Your task to perform on an android device: Find coffee shops on Maps Image 0: 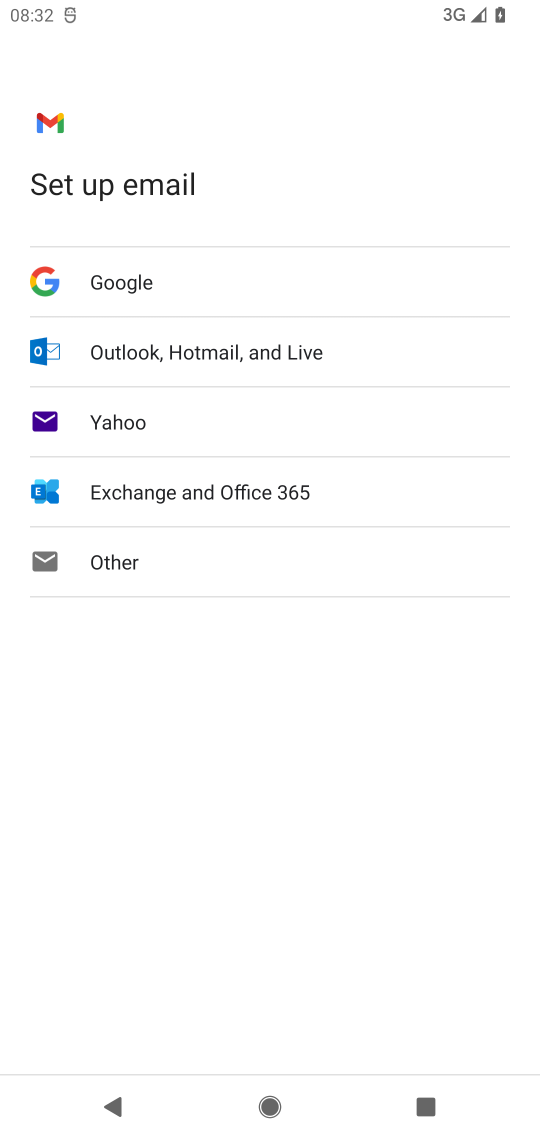
Step 0: press home button
Your task to perform on an android device: Find coffee shops on Maps Image 1: 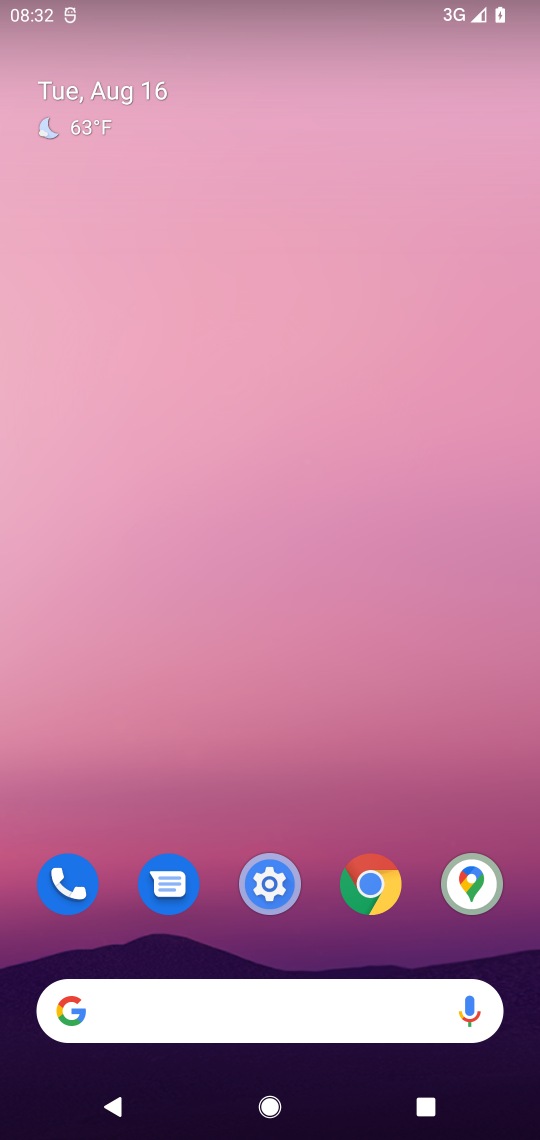
Step 1: click (468, 882)
Your task to perform on an android device: Find coffee shops on Maps Image 2: 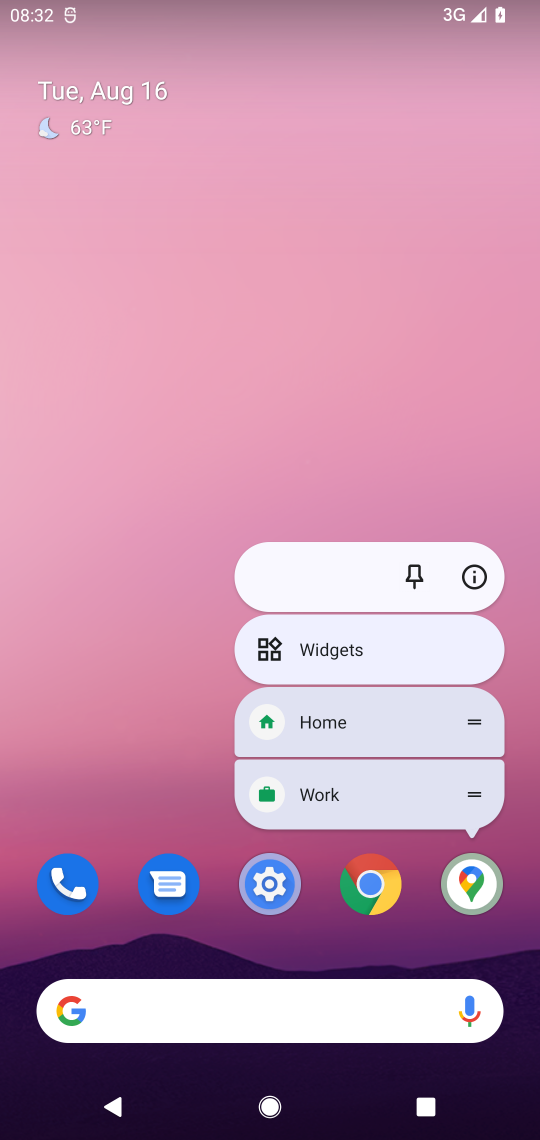
Step 2: click (468, 882)
Your task to perform on an android device: Find coffee shops on Maps Image 3: 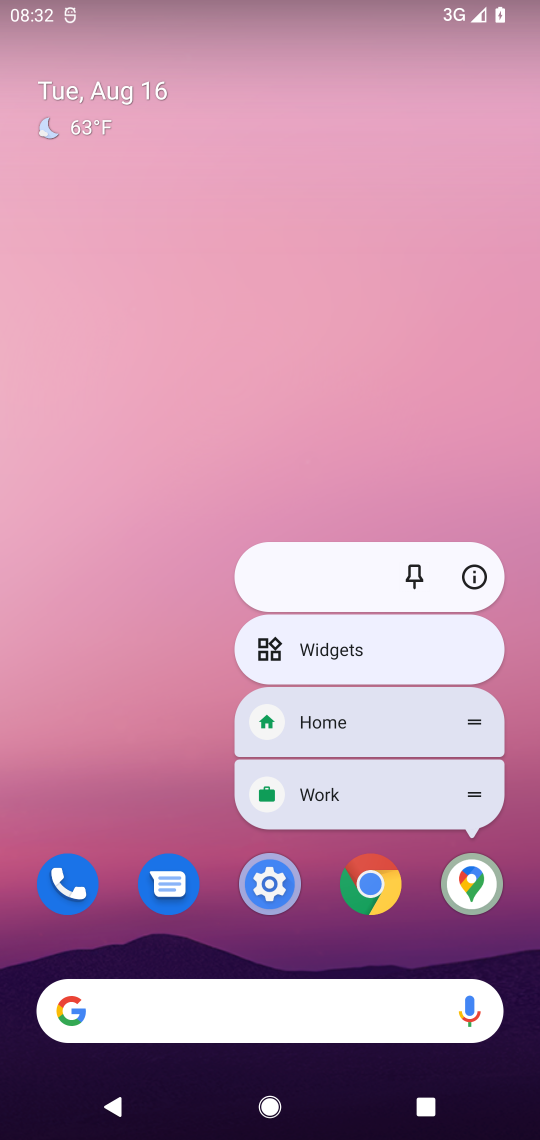
Step 3: drag from (159, 756) to (359, 0)
Your task to perform on an android device: Find coffee shops on Maps Image 4: 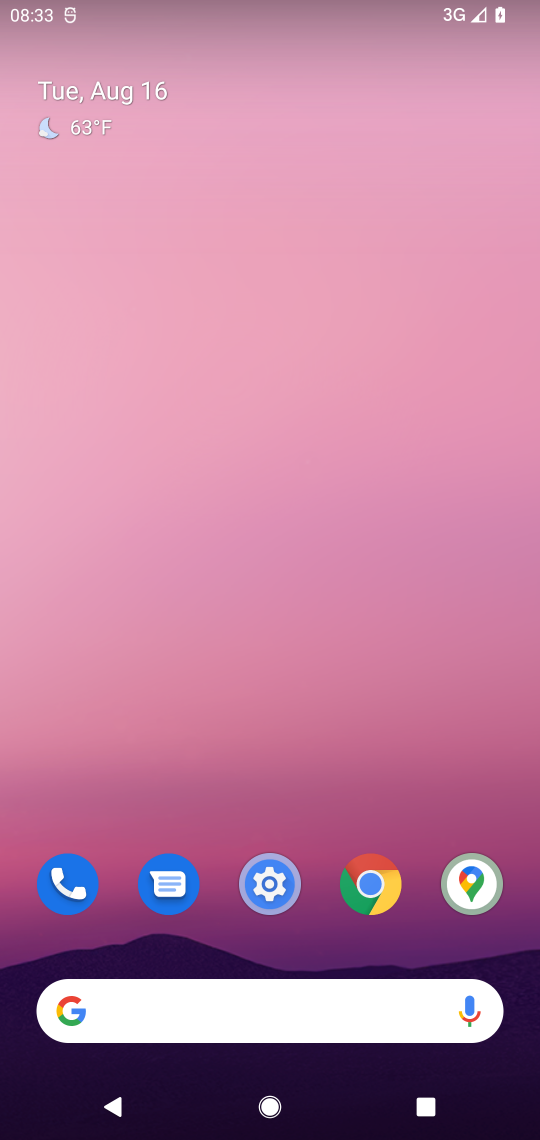
Step 4: drag from (343, 739) to (236, 6)
Your task to perform on an android device: Find coffee shops on Maps Image 5: 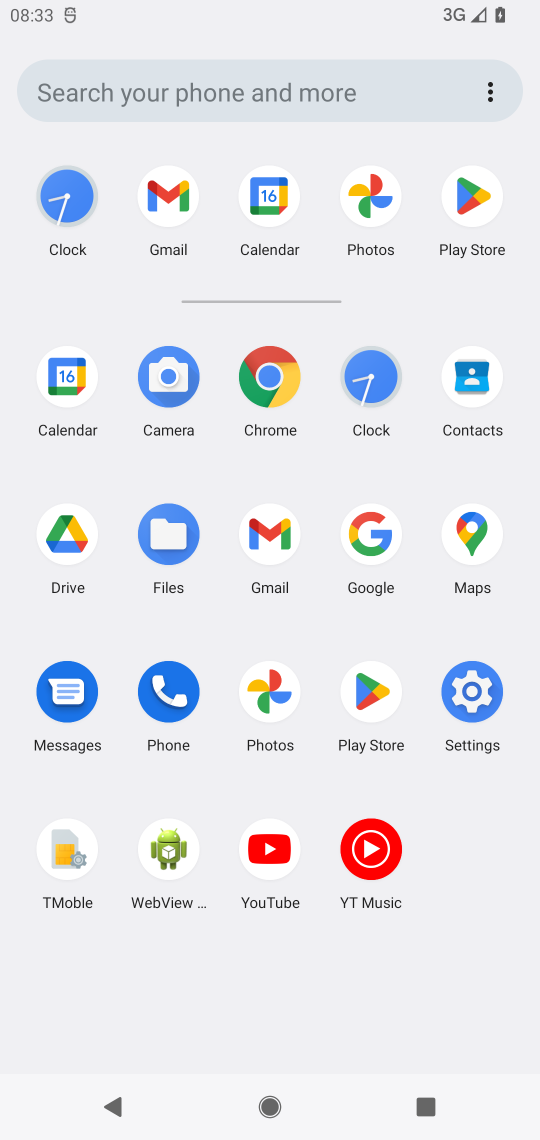
Step 5: click (479, 535)
Your task to perform on an android device: Find coffee shops on Maps Image 6: 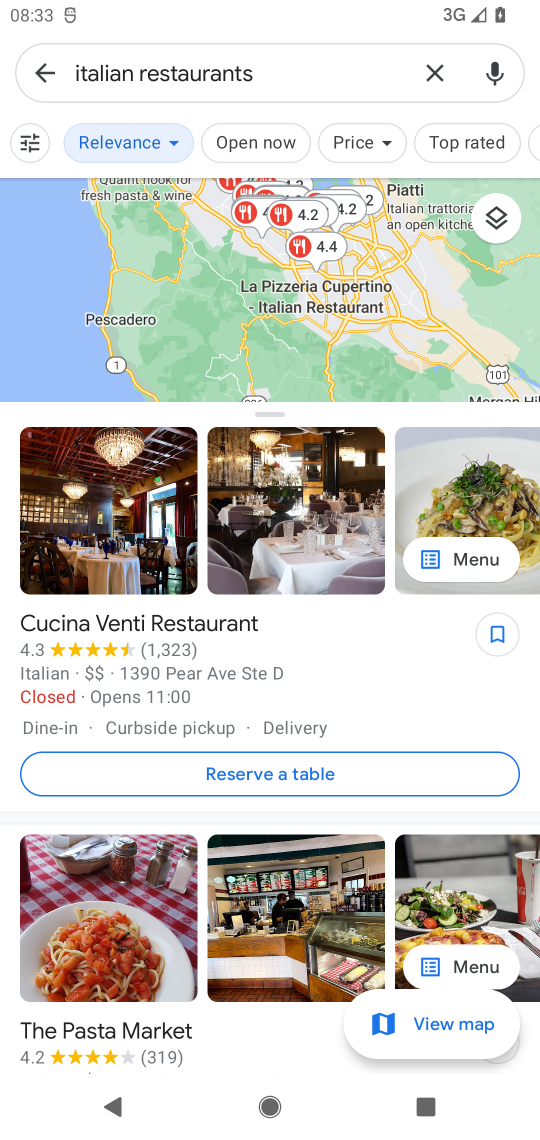
Step 6: click (45, 75)
Your task to perform on an android device: Find coffee shops on Maps Image 7: 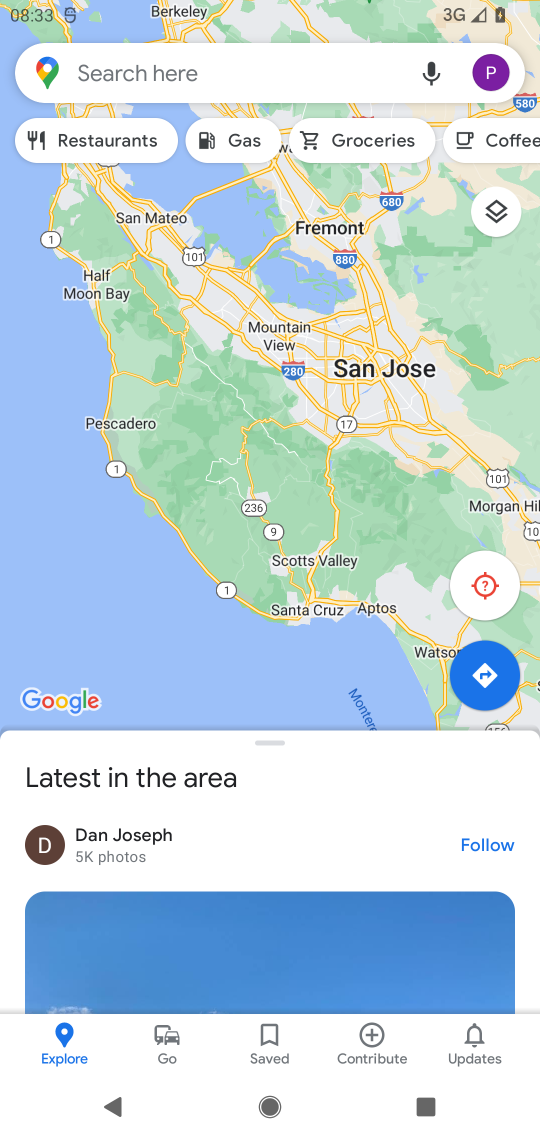
Step 7: click (209, 73)
Your task to perform on an android device: Find coffee shops on Maps Image 8: 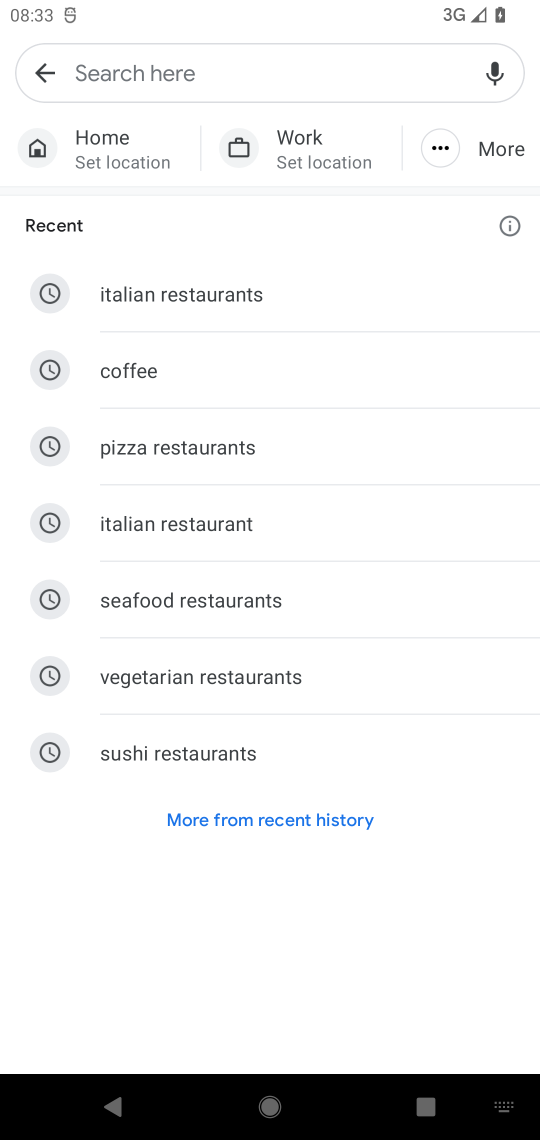
Step 8: type " coffee shops "
Your task to perform on an android device: Find coffee shops on Maps Image 9: 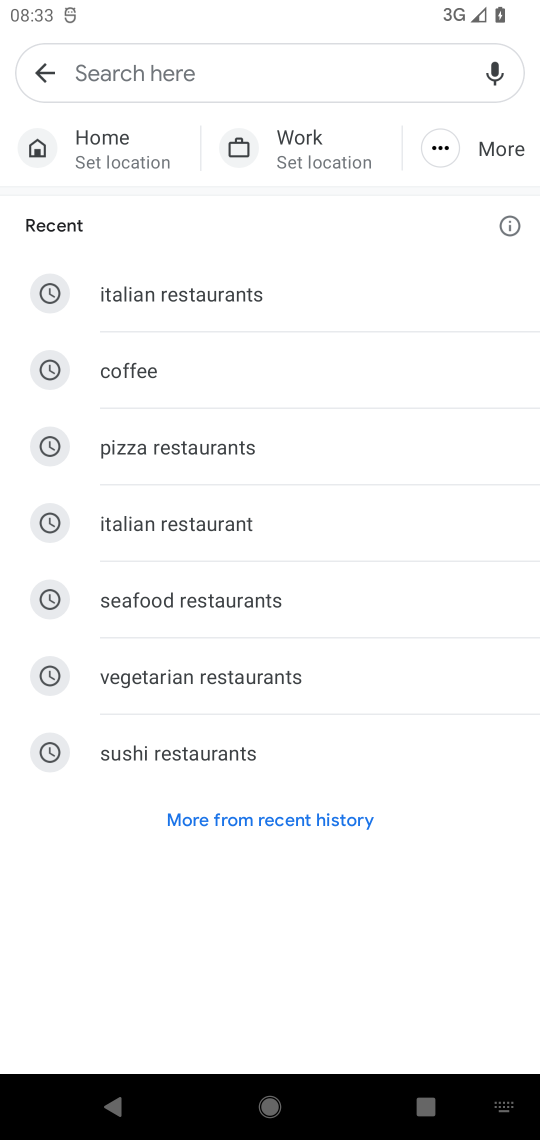
Step 9: click (145, 70)
Your task to perform on an android device: Find coffee shops on Maps Image 10: 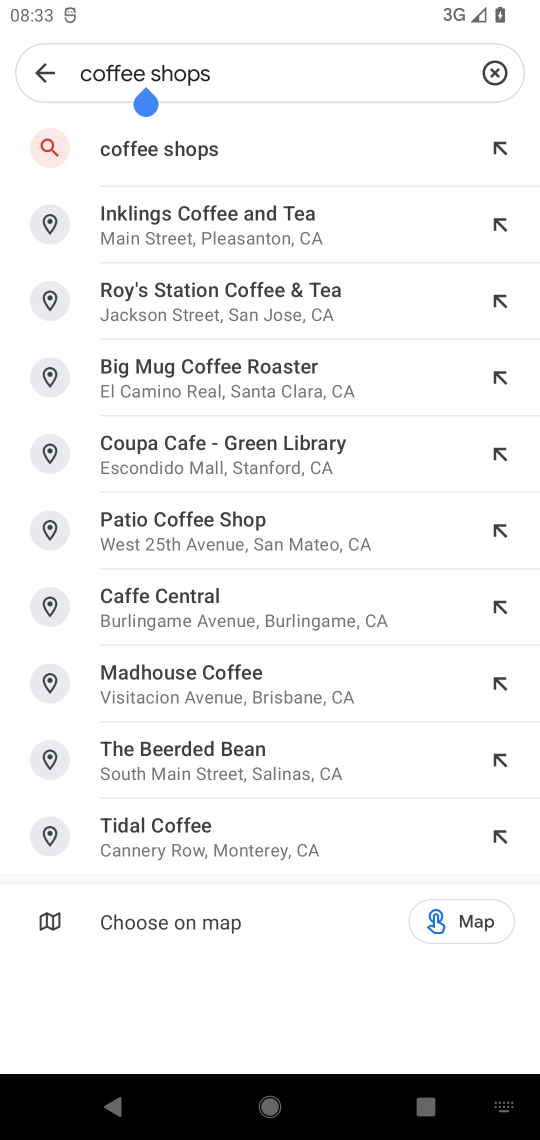
Step 10: press enter
Your task to perform on an android device: Find coffee shops on Maps Image 11: 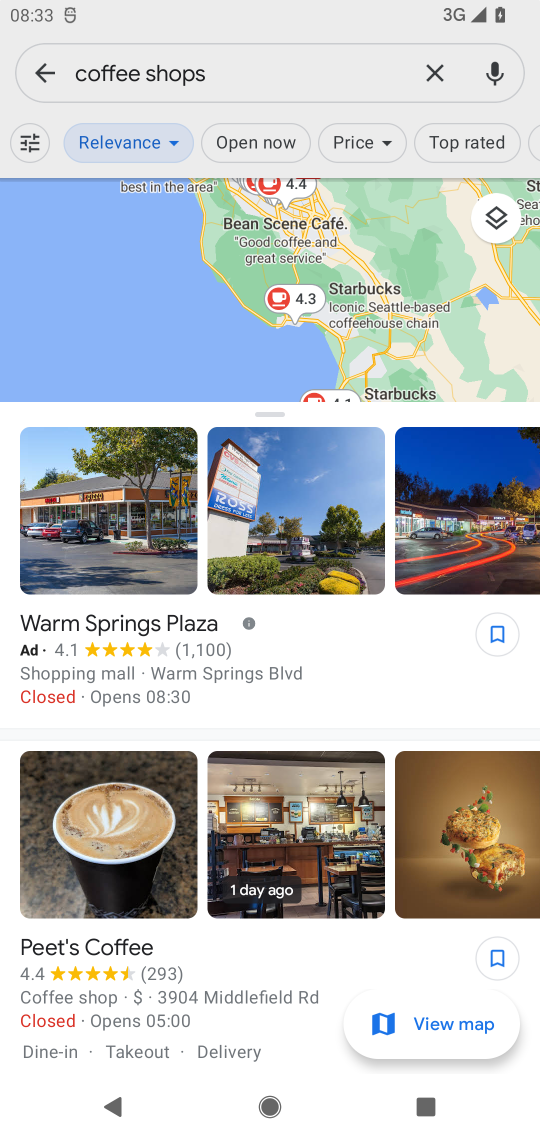
Step 11: task complete